Your task to perform on an android device: Show the shopping cart on newegg. Search for acer predator on newegg, select the first entry, add it to the cart, then select checkout. Image 0: 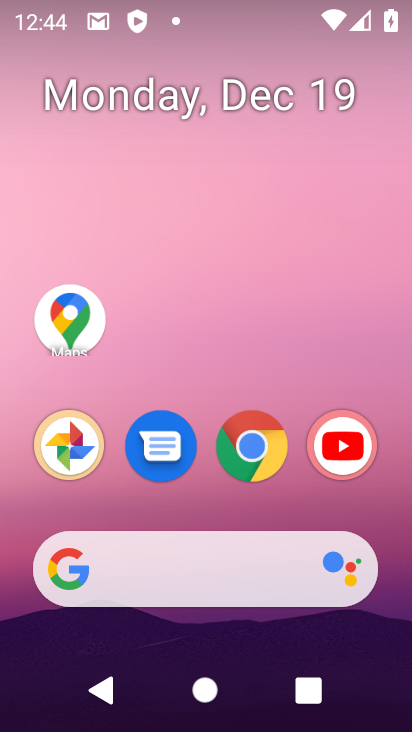
Step 0: click (250, 461)
Your task to perform on an android device: Show the shopping cart on newegg. Search for acer predator on newegg, select the first entry, add it to the cart, then select checkout. Image 1: 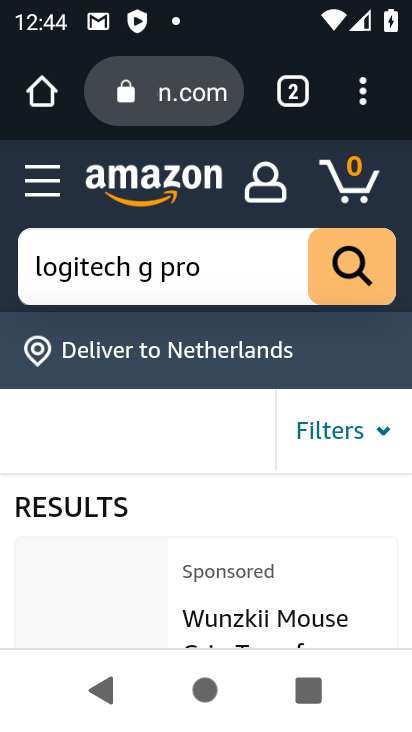
Step 1: click (201, 79)
Your task to perform on an android device: Show the shopping cart on newegg. Search for acer predator on newegg, select the first entry, add it to the cart, then select checkout. Image 2: 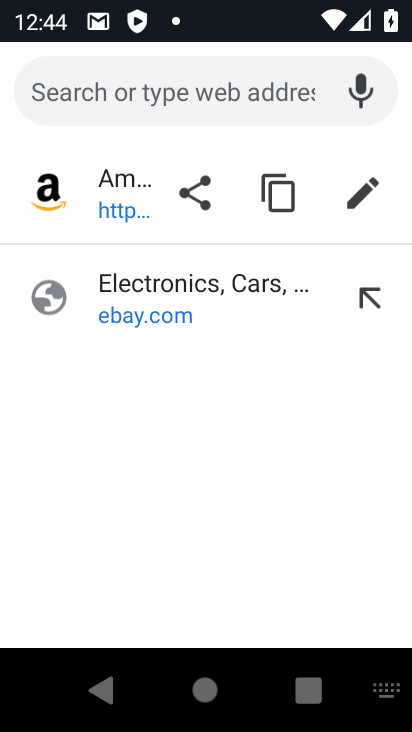
Step 2: type "newegg"
Your task to perform on an android device: Show the shopping cart on newegg. Search for acer predator on newegg, select the first entry, add it to the cart, then select checkout. Image 3: 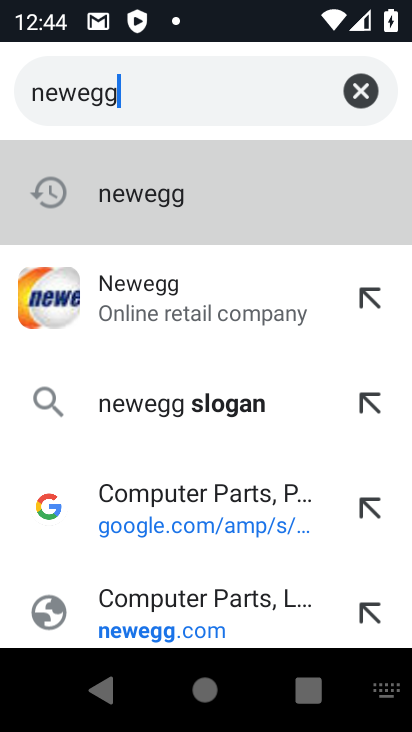
Step 3: click (172, 286)
Your task to perform on an android device: Show the shopping cart on newegg. Search for acer predator on newegg, select the first entry, add it to the cart, then select checkout. Image 4: 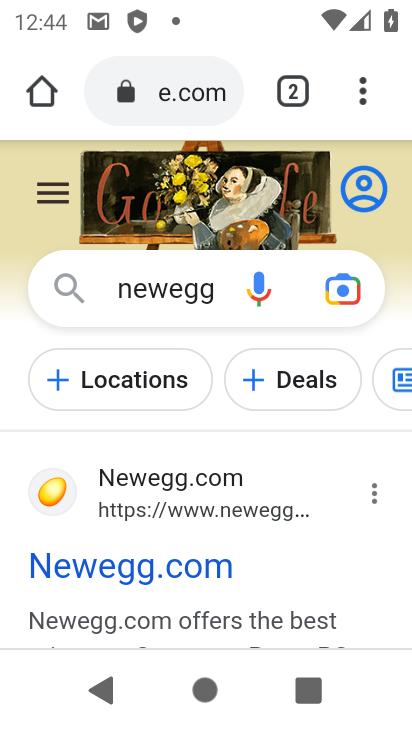
Step 4: click (227, 556)
Your task to perform on an android device: Show the shopping cart on newegg. Search for acer predator on newegg, select the first entry, add it to the cart, then select checkout. Image 5: 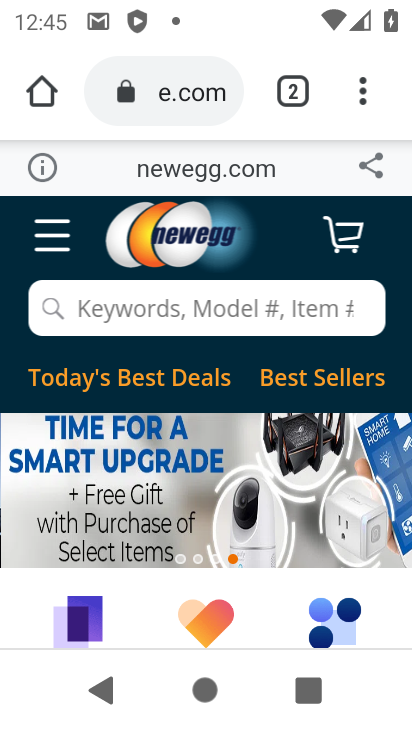
Step 5: click (235, 313)
Your task to perform on an android device: Show the shopping cart on newegg. Search for acer predator on newegg, select the first entry, add it to the cart, then select checkout. Image 6: 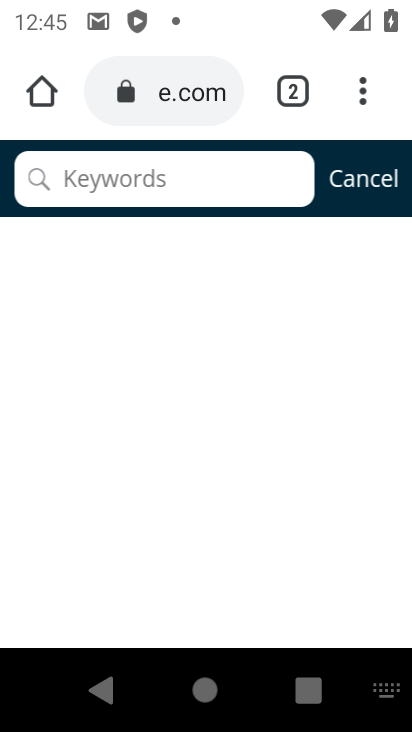
Step 6: type "acer newegg"
Your task to perform on an android device: Show the shopping cart on newegg. Search for acer predator on newegg, select the first entry, add it to the cart, then select checkout. Image 7: 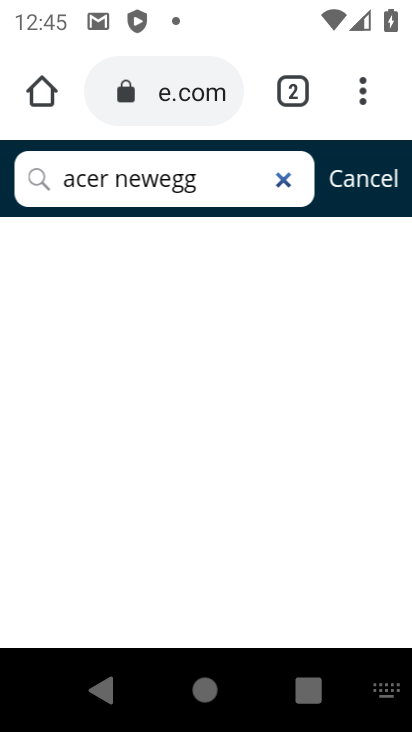
Step 7: click (289, 185)
Your task to perform on an android device: Show the shopping cart on newegg. Search for acer predator on newegg, select the first entry, add it to the cart, then select checkout. Image 8: 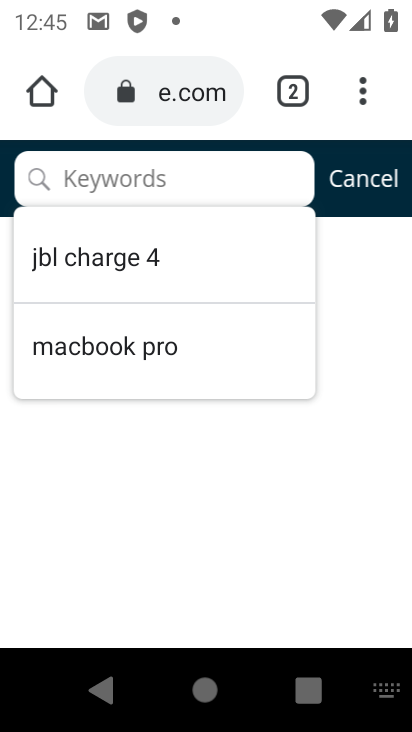
Step 8: type "acer predator"
Your task to perform on an android device: Show the shopping cart on newegg. Search for acer predator on newegg, select the first entry, add it to the cart, then select checkout. Image 9: 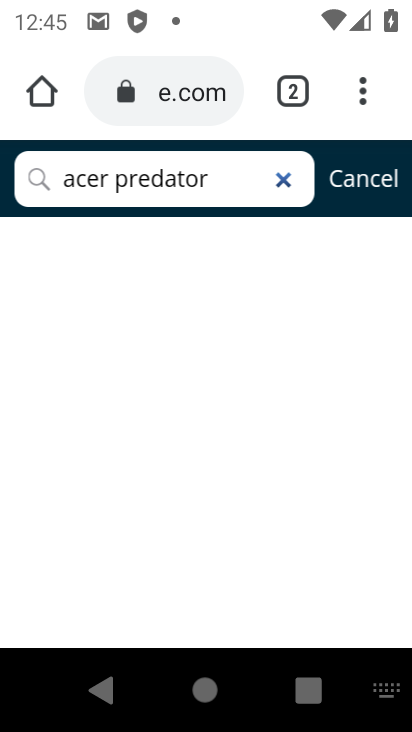
Step 9: task complete